Your task to perform on an android device: change notifications settings Image 0: 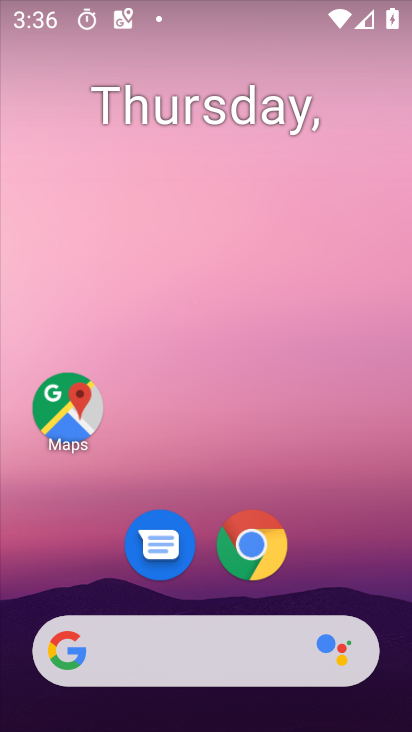
Step 0: drag from (223, 714) to (235, 11)
Your task to perform on an android device: change notifications settings Image 1: 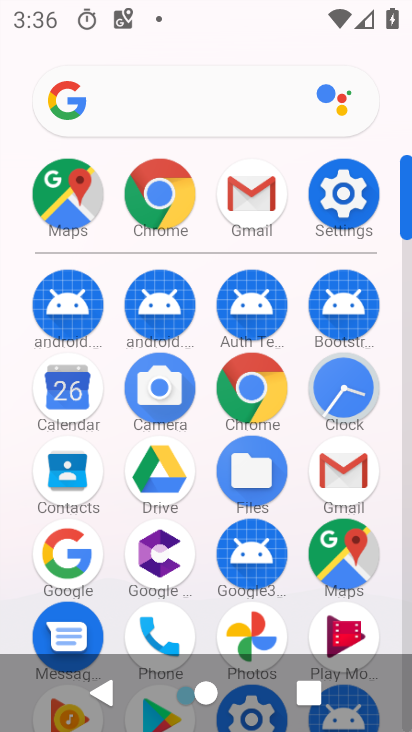
Step 1: click (349, 203)
Your task to perform on an android device: change notifications settings Image 2: 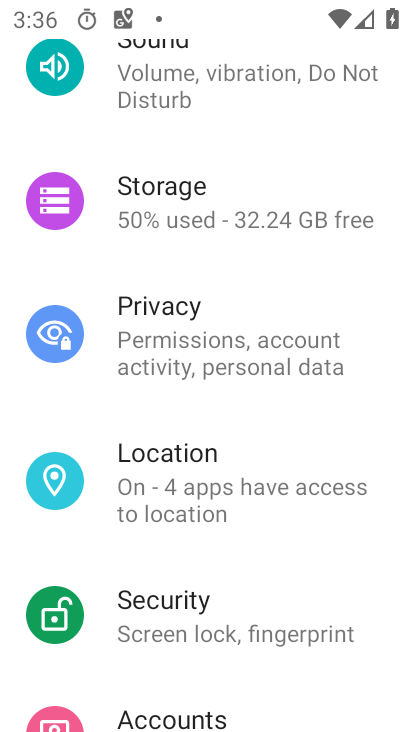
Step 2: drag from (231, 177) to (240, 581)
Your task to perform on an android device: change notifications settings Image 3: 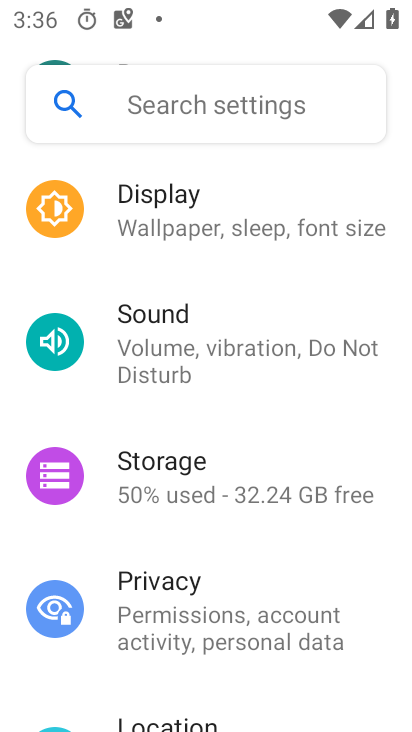
Step 3: drag from (243, 180) to (236, 602)
Your task to perform on an android device: change notifications settings Image 4: 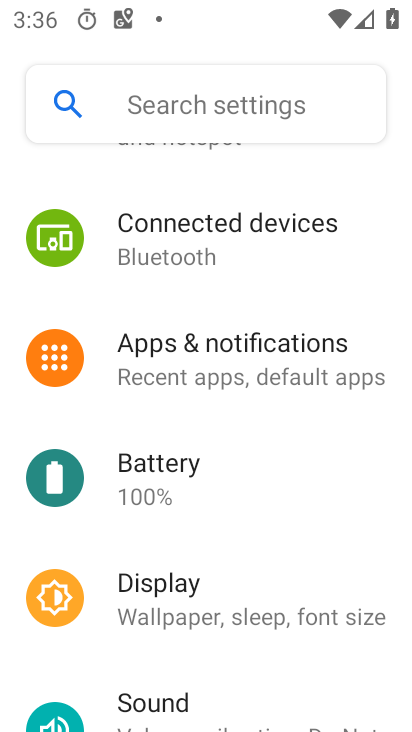
Step 4: click (233, 357)
Your task to perform on an android device: change notifications settings Image 5: 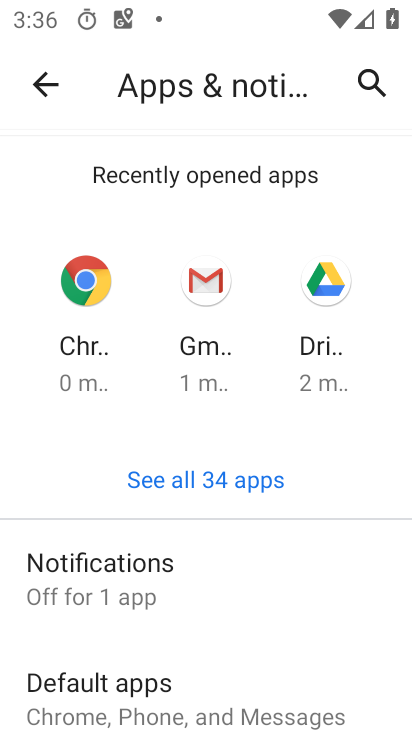
Step 5: click (128, 594)
Your task to perform on an android device: change notifications settings Image 6: 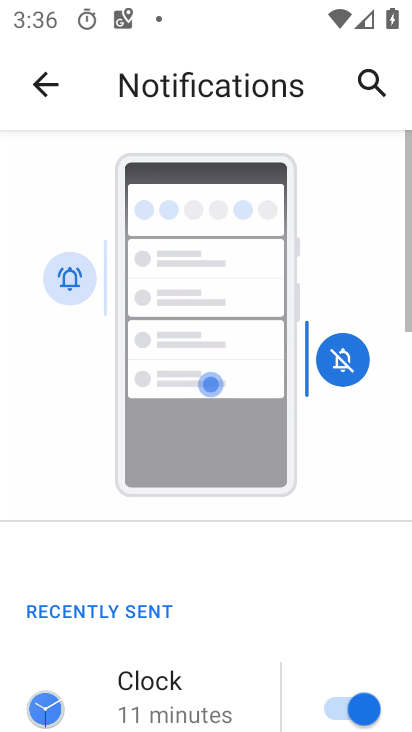
Step 6: drag from (231, 707) to (236, 397)
Your task to perform on an android device: change notifications settings Image 7: 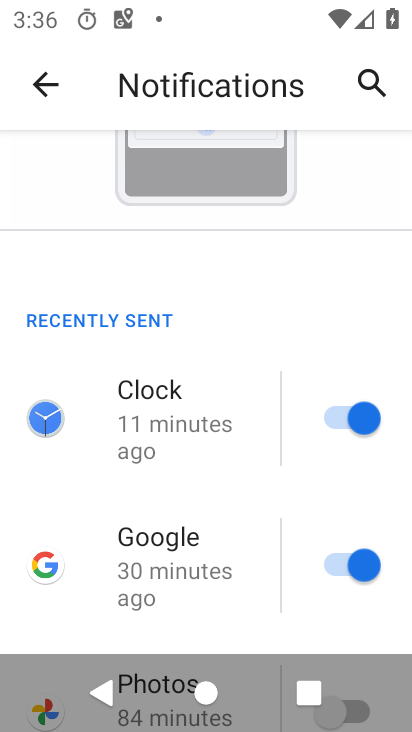
Step 7: drag from (218, 639) to (225, 211)
Your task to perform on an android device: change notifications settings Image 8: 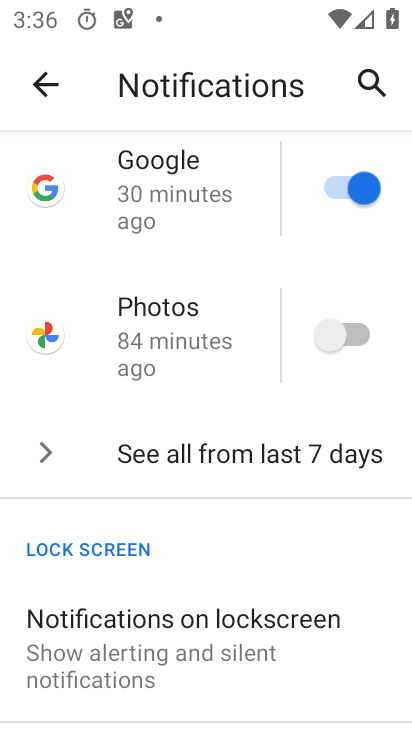
Step 8: drag from (242, 709) to (249, 249)
Your task to perform on an android device: change notifications settings Image 9: 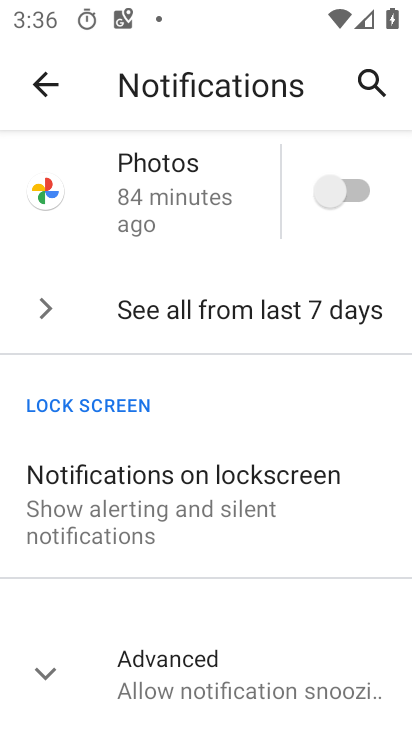
Step 9: click (201, 680)
Your task to perform on an android device: change notifications settings Image 10: 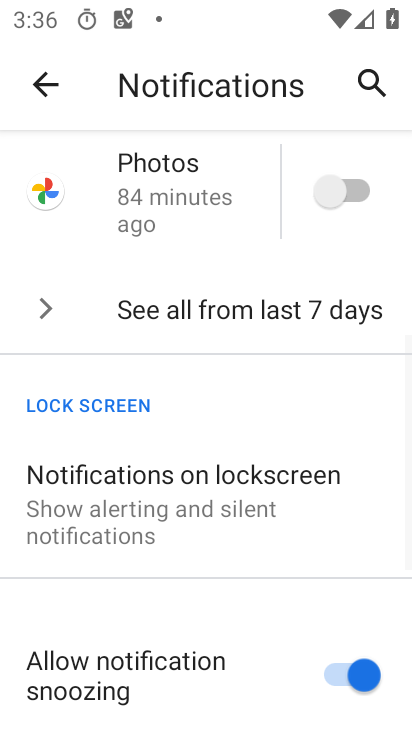
Step 10: drag from (277, 703) to (274, 322)
Your task to perform on an android device: change notifications settings Image 11: 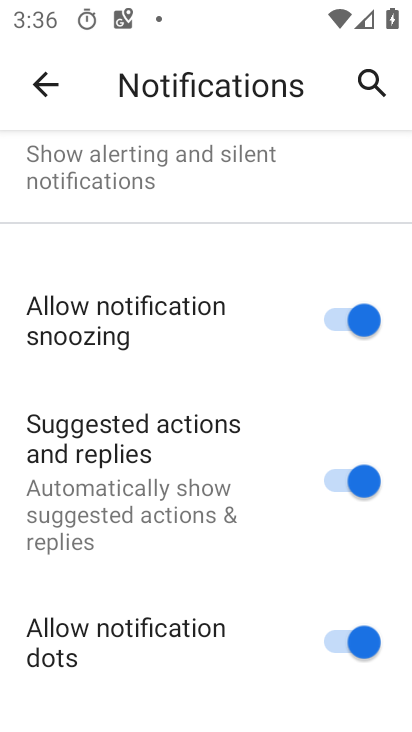
Step 11: click (336, 310)
Your task to perform on an android device: change notifications settings Image 12: 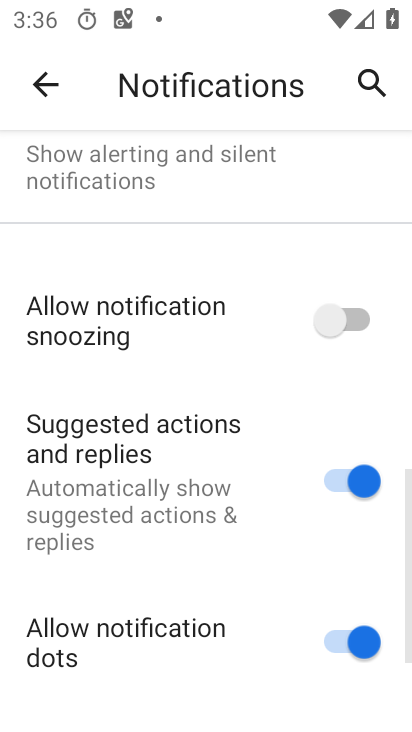
Step 12: task complete